Your task to perform on an android device: turn off wifi Image 0: 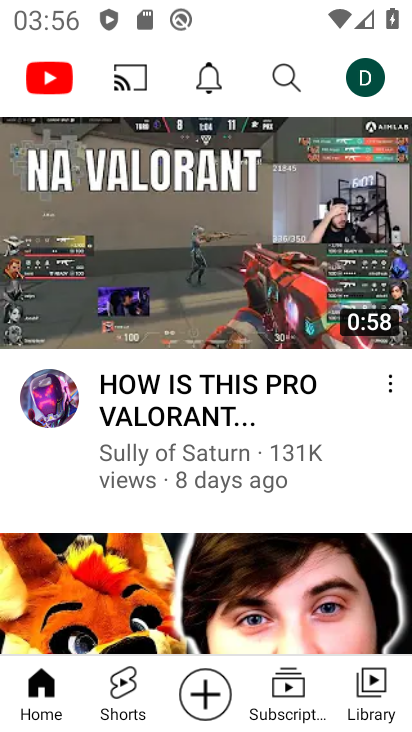
Step 0: press back button
Your task to perform on an android device: turn off wifi Image 1: 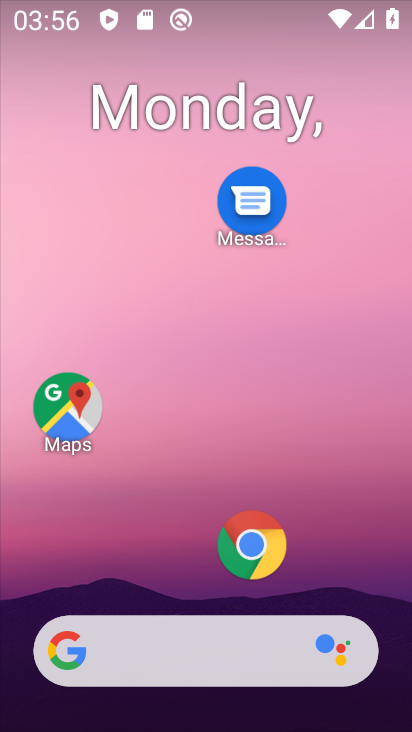
Step 1: press home button
Your task to perform on an android device: turn off wifi Image 2: 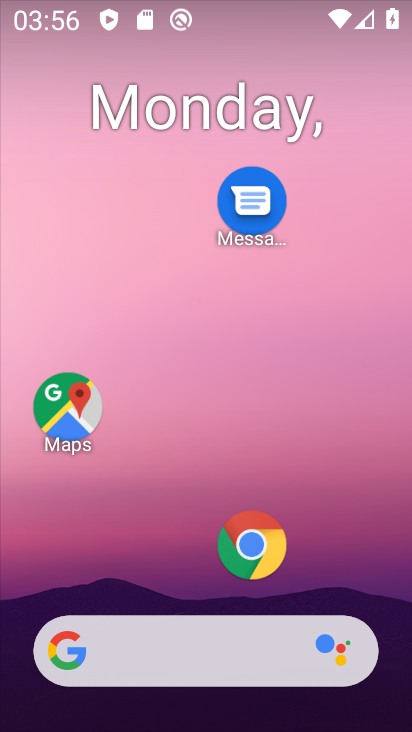
Step 2: drag from (120, 84) to (120, 497)
Your task to perform on an android device: turn off wifi Image 3: 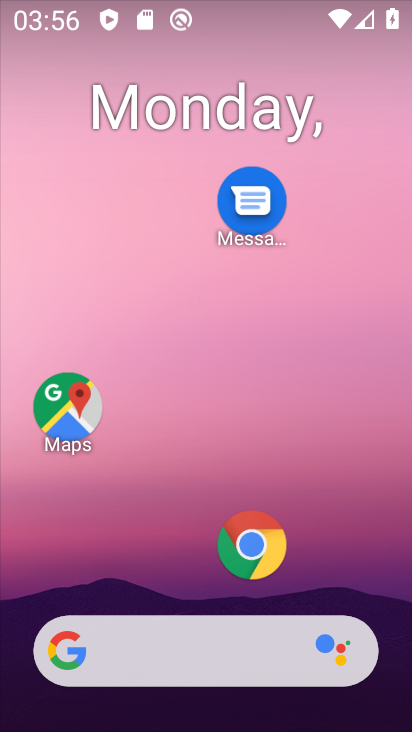
Step 3: drag from (149, 16) to (141, 507)
Your task to perform on an android device: turn off wifi Image 4: 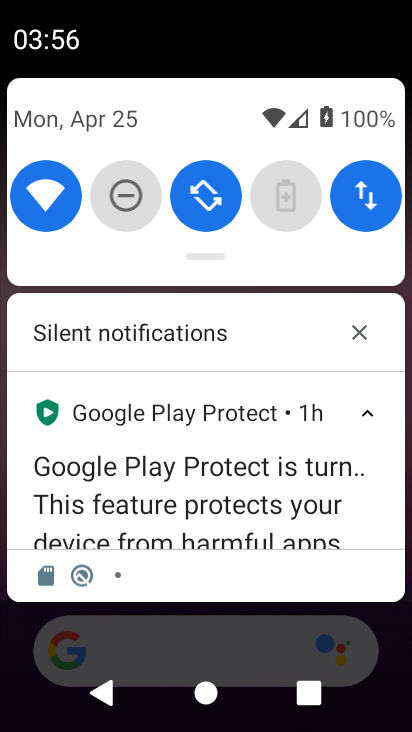
Step 4: click (51, 198)
Your task to perform on an android device: turn off wifi Image 5: 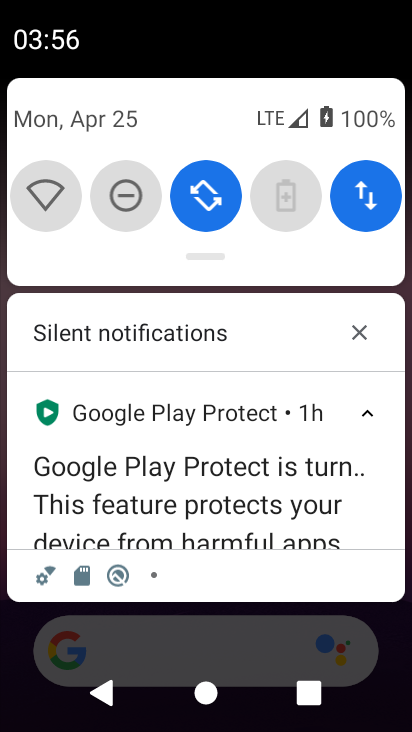
Step 5: task complete